Your task to perform on an android device: set default search engine in the chrome app Image 0: 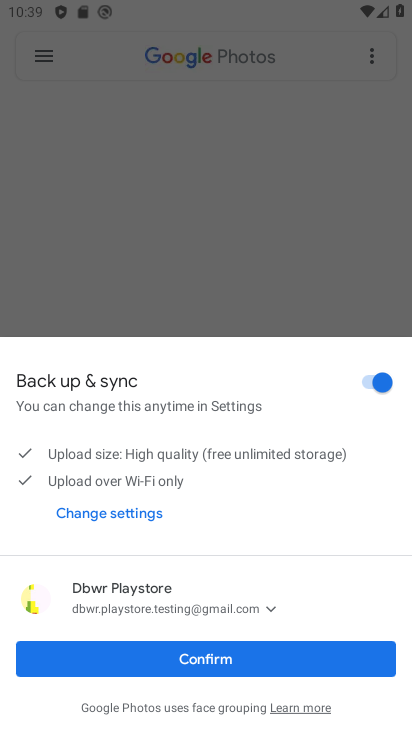
Step 0: press home button
Your task to perform on an android device: set default search engine in the chrome app Image 1: 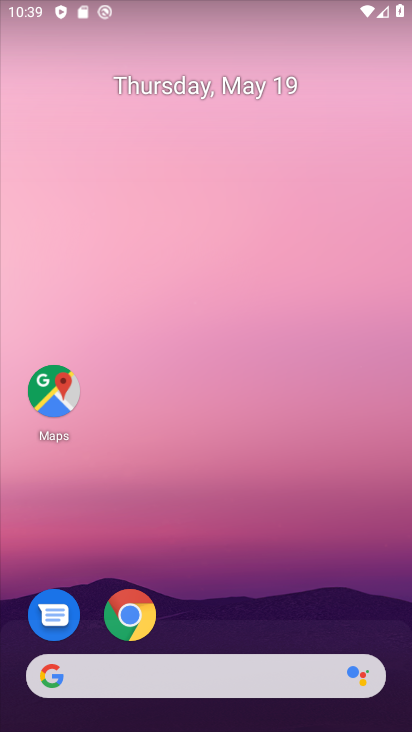
Step 1: click (136, 607)
Your task to perform on an android device: set default search engine in the chrome app Image 2: 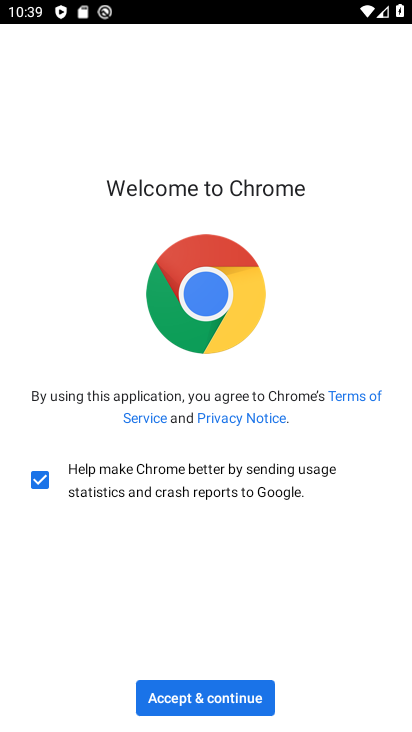
Step 2: click (226, 696)
Your task to perform on an android device: set default search engine in the chrome app Image 3: 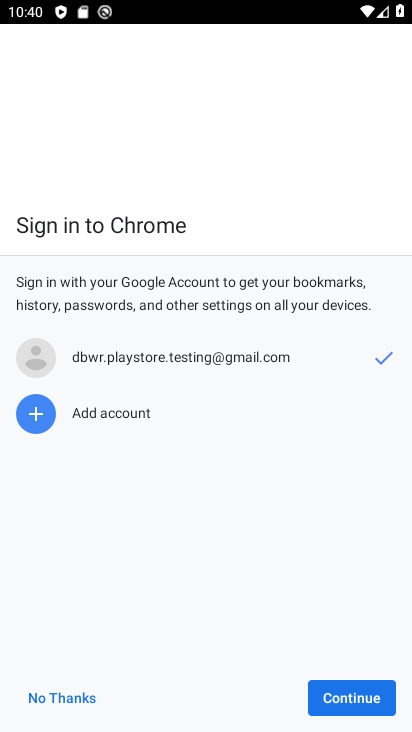
Step 3: click (358, 691)
Your task to perform on an android device: set default search engine in the chrome app Image 4: 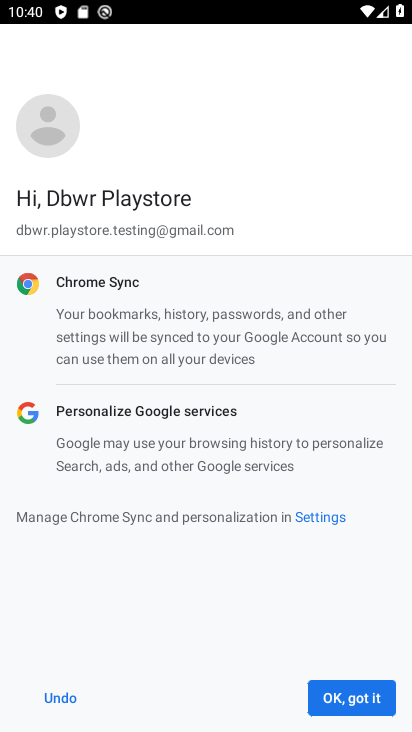
Step 4: click (353, 708)
Your task to perform on an android device: set default search engine in the chrome app Image 5: 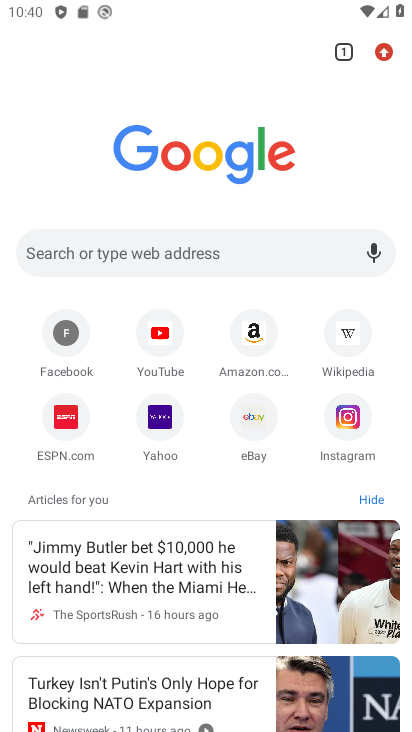
Step 5: click (385, 40)
Your task to perform on an android device: set default search engine in the chrome app Image 6: 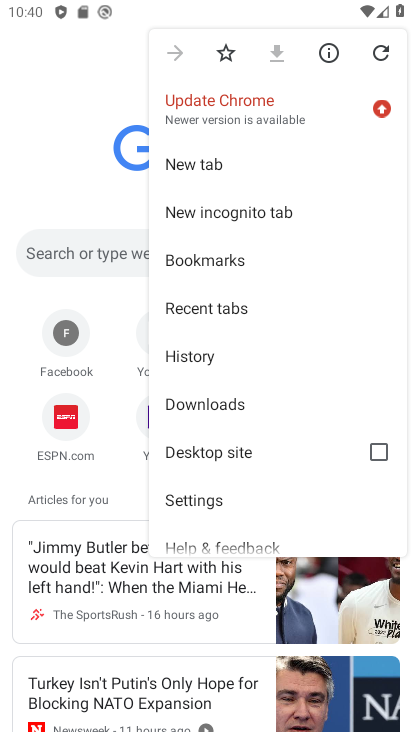
Step 6: click (244, 495)
Your task to perform on an android device: set default search engine in the chrome app Image 7: 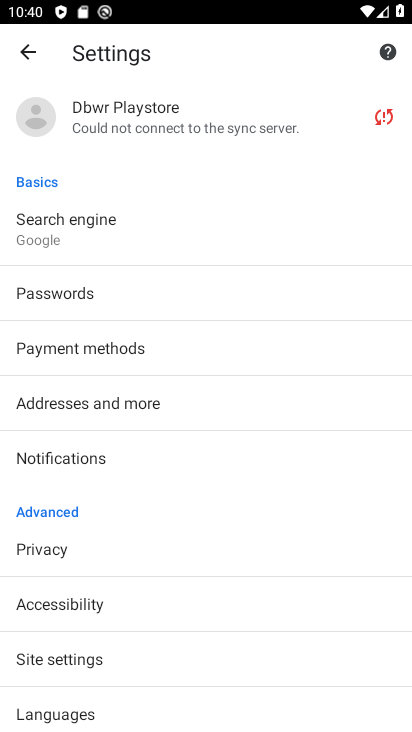
Step 7: click (167, 240)
Your task to perform on an android device: set default search engine in the chrome app Image 8: 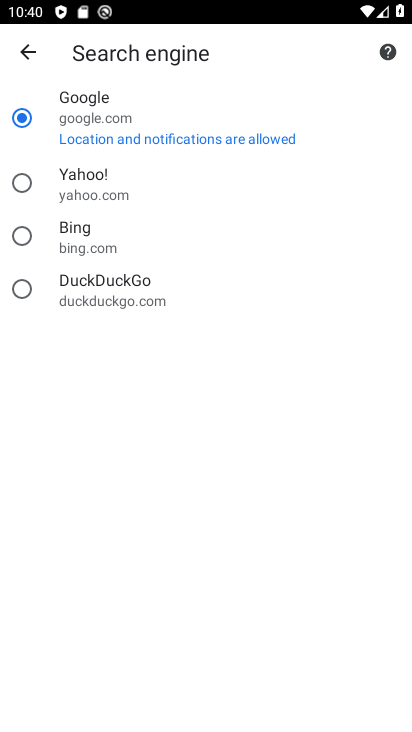
Step 8: click (98, 240)
Your task to perform on an android device: set default search engine in the chrome app Image 9: 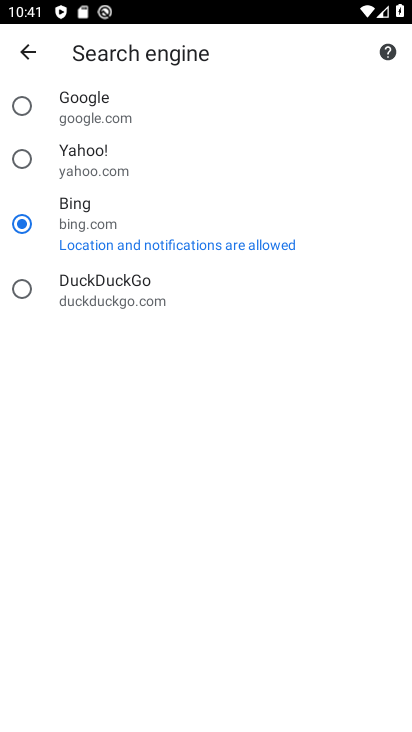
Step 9: task complete